Your task to perform on an android device: open wifi settings Image 0: 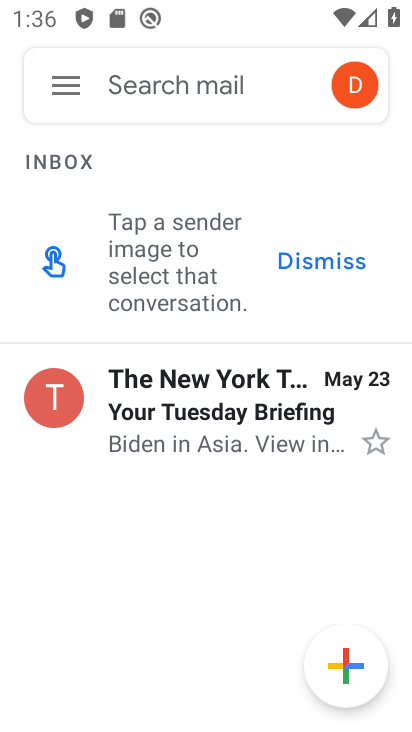
Step 0: press home button
Your task to perform on an android device: open wifi settings Image 1: 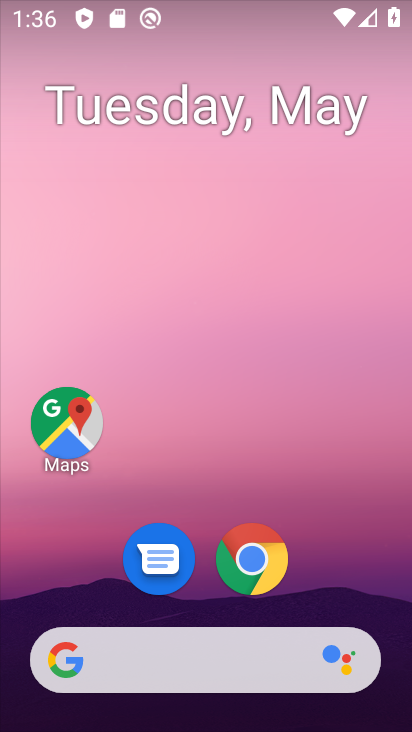
Step 1: drag from (402, 628) to (272, 75)
Your task to perform on an android device: open wifi settings Image 2: 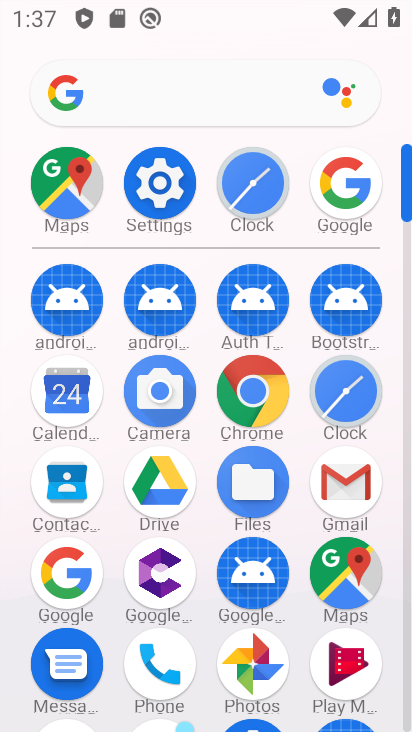
Step 2: click (178, 154)
Your task to perform on an android device: open wifi settings Image 3: 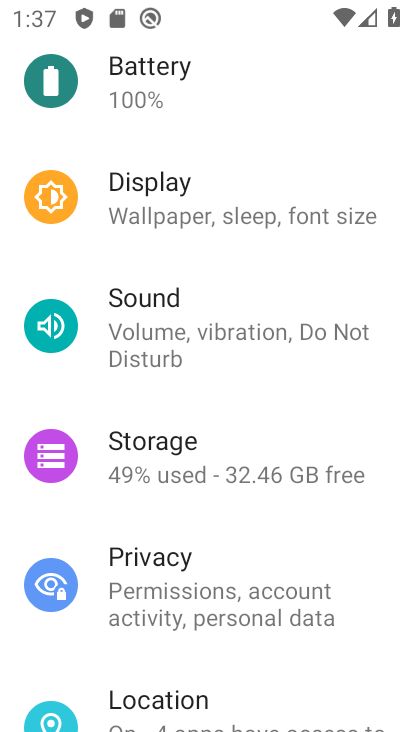
Step 3: drag from (155, 80) to (221, 554)
Your task to perform on an android device: open wifi settings Image 4: 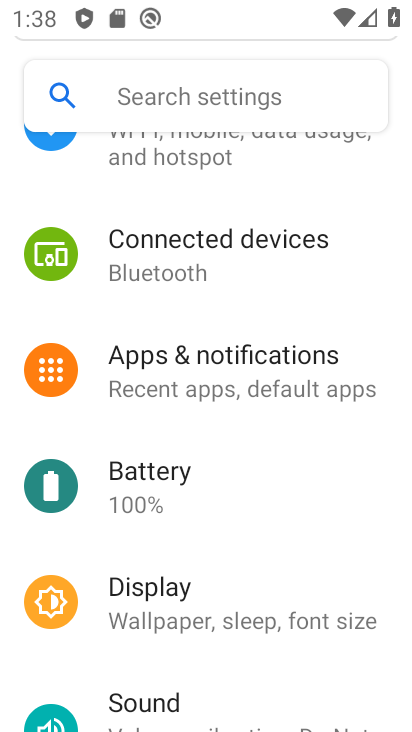
Step 4: drag from (173, 232) to (210, 599)
Your task to perform on an android device: open wifi settings Image 5: 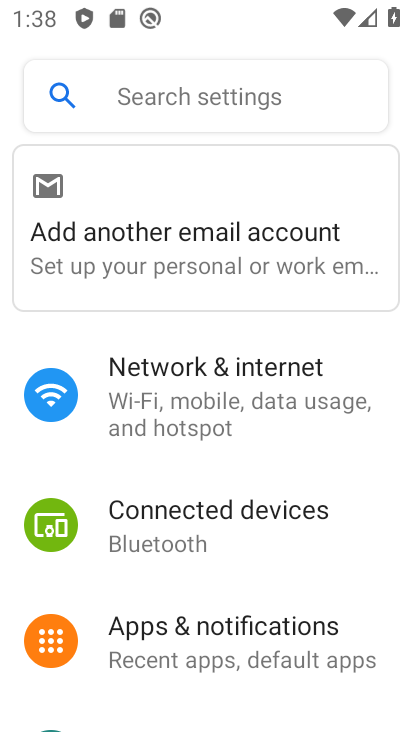
Step 5: click (185, 412)
Your task to perform on an android device: open wifi settings Image 6: 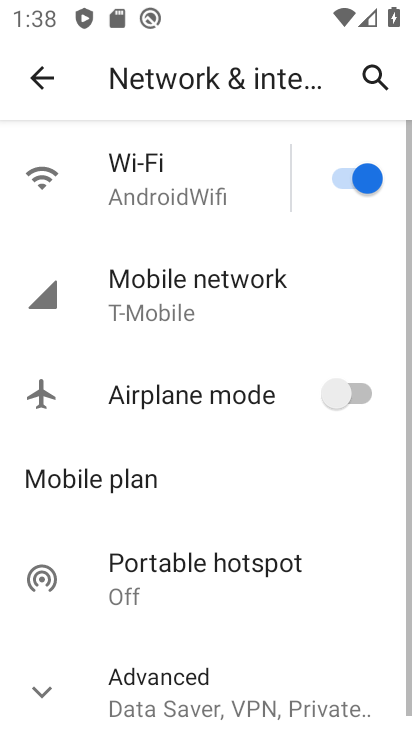
Step 6: click (159, 197)
Your task to perform on an android device: open wifi settings Image 7: 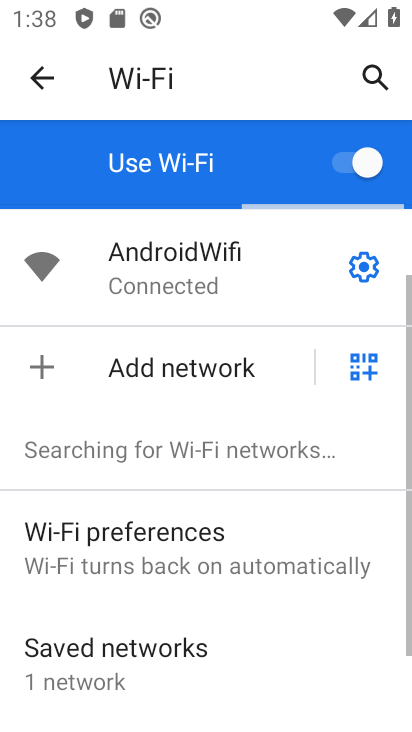
Step 7: task complete